Your task to perform on an android device: Open Android settings Image 0: 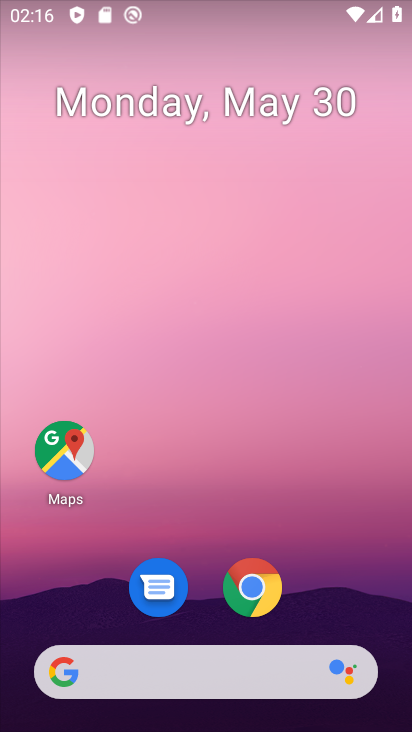
Step 0: drag from (114, 205) to (94, 160)
Your task to perform on an android device: Open Android settings Image 1: 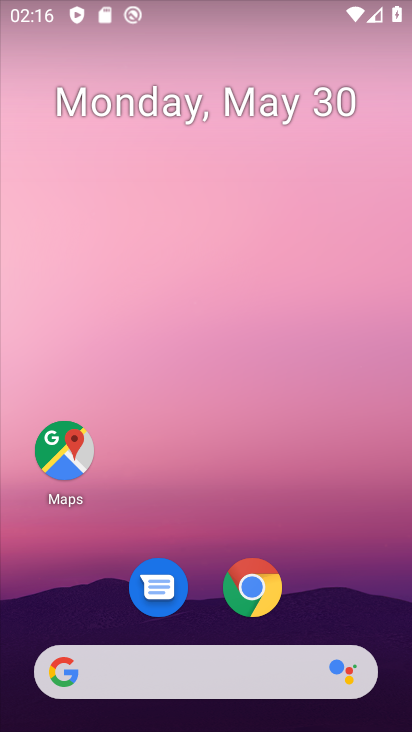
Step 1: drag from (135, 728) to (196, 36)
Your task to perform on an android device: Open Android settings Image 2: 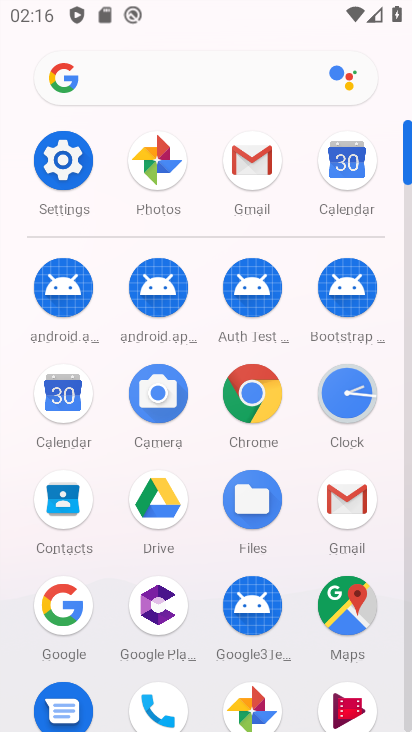
Step 2: click (71, 167)
Your task to perform on an android device: Open Android settings Image 3: 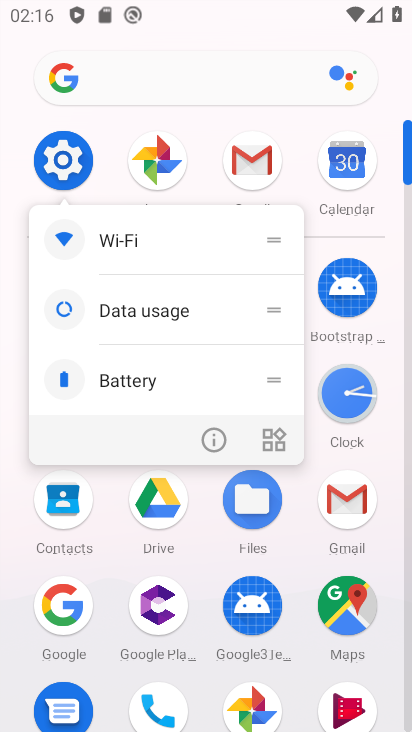
Step 3: click (71, 167)
Your task to perform on an android device: Open Android settings Image 4: 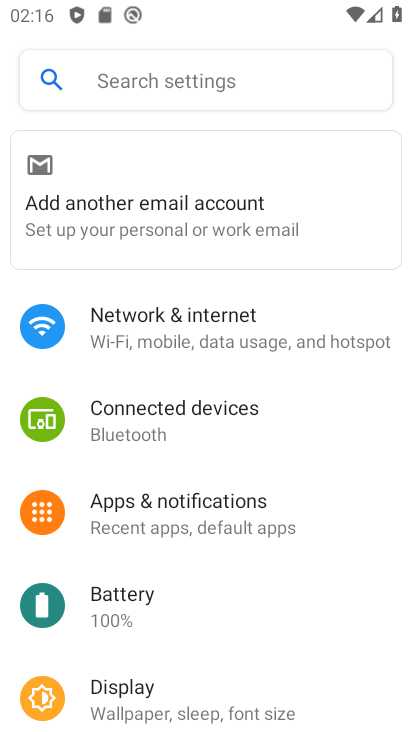
Step 4: task complete